Your task to perform on an android device: Find coffee shops on Maps Image 0: 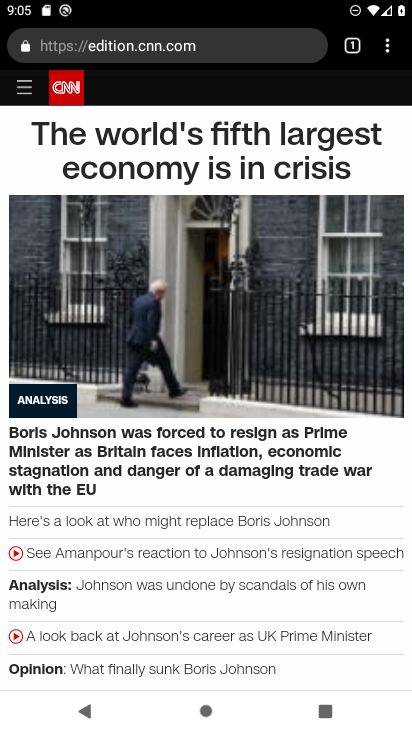
Step 0: press home button
Your task to perform on an android device: Find coffee shops on Maps Image 1: 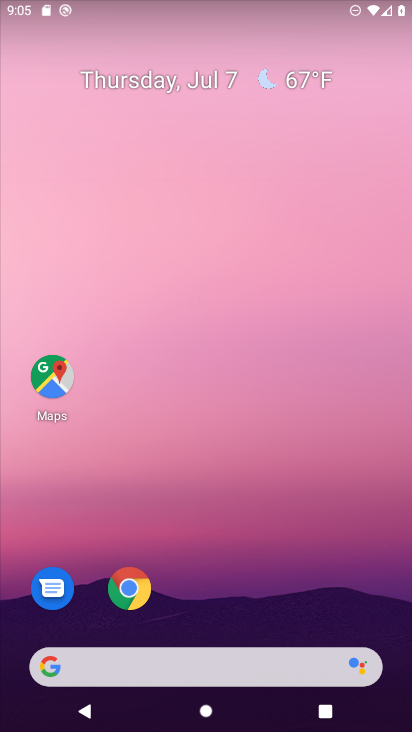
Step 1: click (55, 374)
Your task to perform on an android device: Find coffee shops on Maps Image 2: 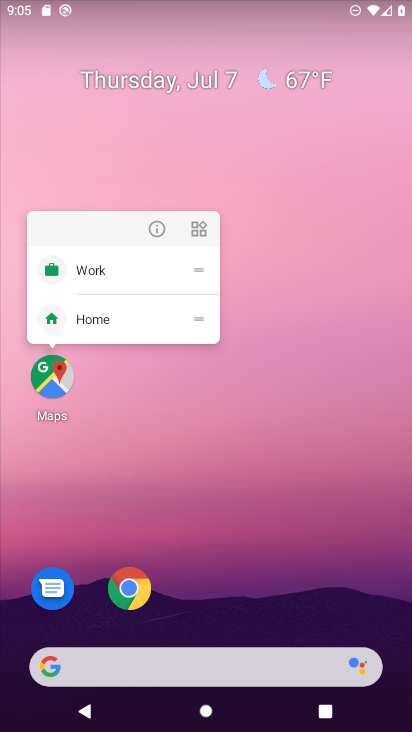
Step 2: click (55, 383)
Your task to perform on an android device: Find coffee shops on Maps Image 3: 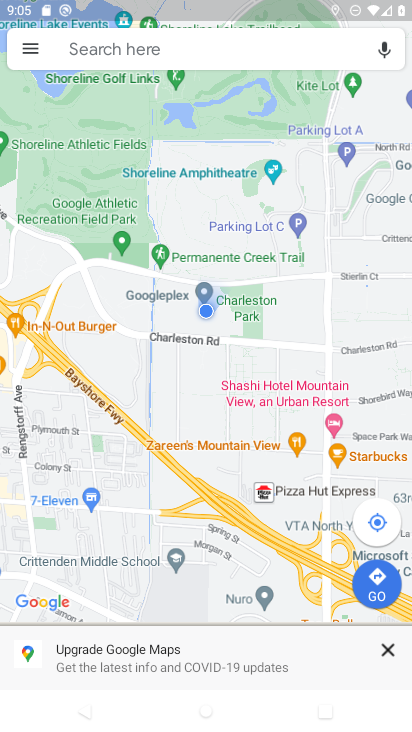
Step 3: click (165, 47)
Your task to perform on an android device: Find coffee shops on Maps Image 4: 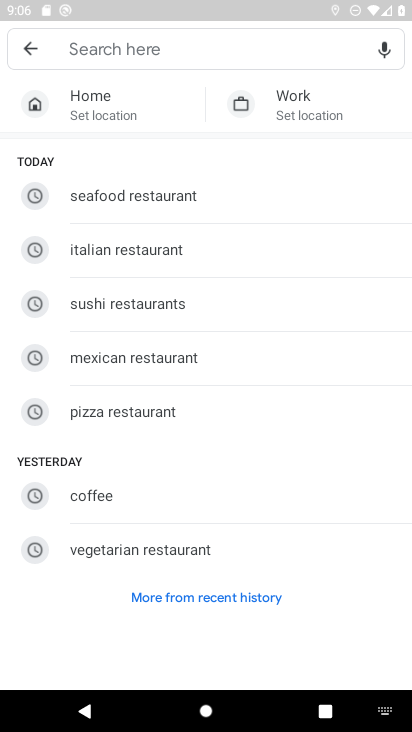
Step 4: type "coffee shops"
Your task to perform on an android device: Find coffee shops on Maps Image 5: 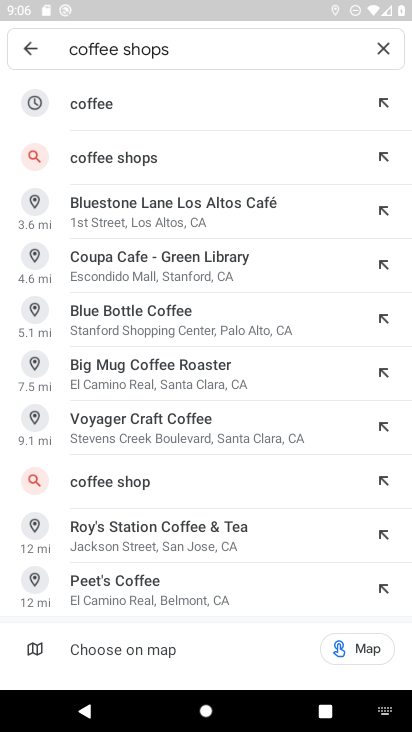
Step 5: click (155, 160)
Your task to perform on an android device: Find coffee shops on Maps Image 6: 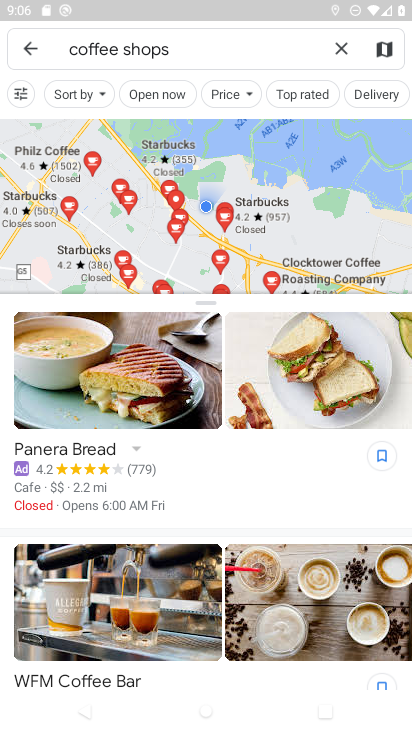
Step 6: task complete